Your task to perform on an android device: add a contact in the contacts app Image 0: 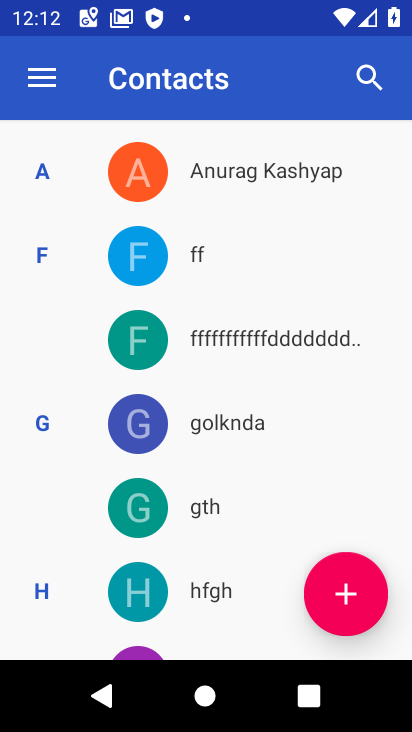
Step 0: press back button
Your task to perform on an android device: add a contact in the contacts app Image 1: 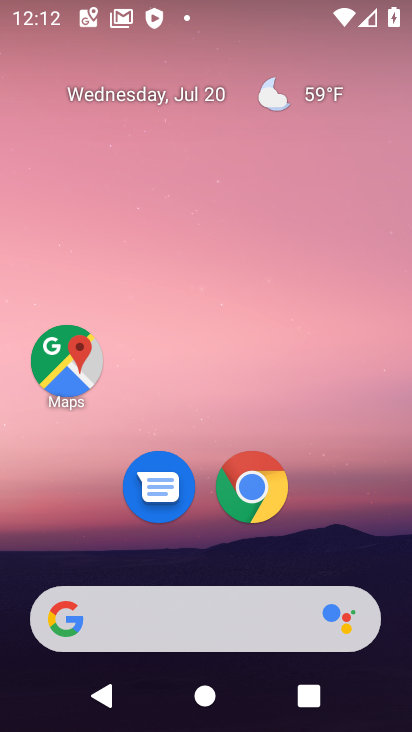
Step 1: drag from (214, 553) to (328, 25)
Your task to perform on an android device: add a contact in the contacts app Image 2: 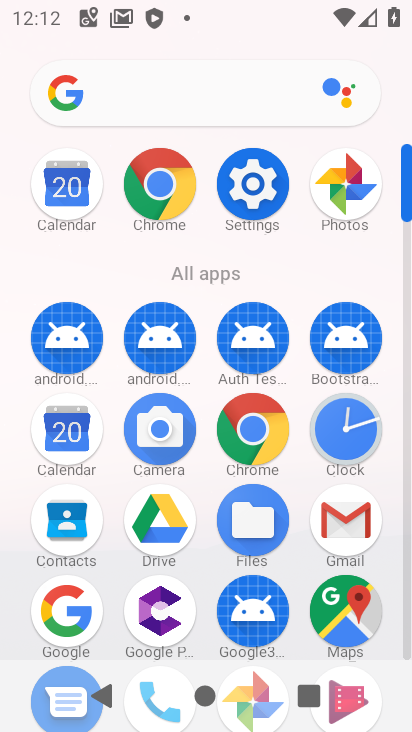
Step 2: click (80, 534)
Your task to perform on an android device: add a contact in the contacts app Image 3: 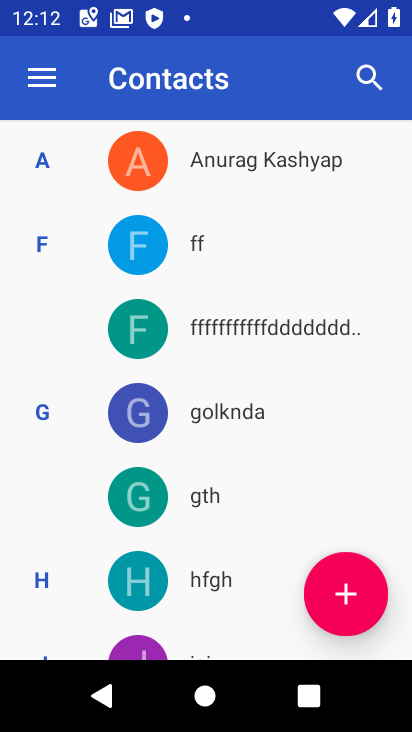
Step 3: click (351, 589)
Your task to perform on an android device: add a contact in the contacts app Image 4: 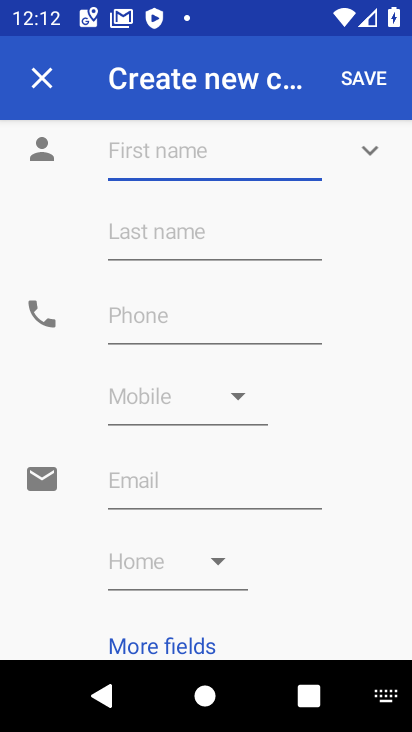
Step 4: click (124, 155)
Your task to perform on an android device: add a contact in the contacts app Image 5: 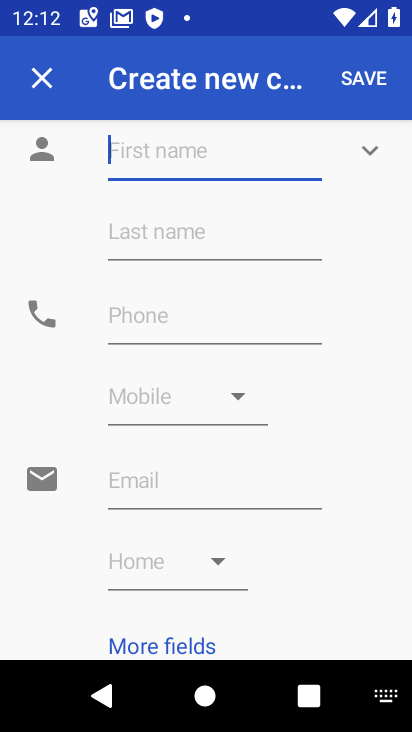
Step 5: type "bfgbgr"
Your task to perform on an android device: add a contact in the contacts app Image 6: 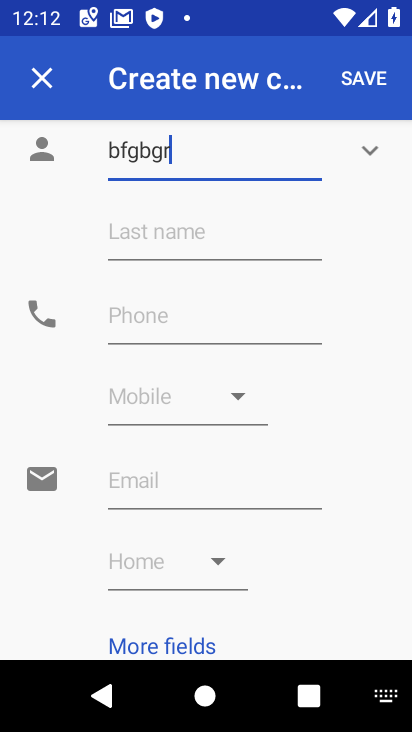
Step 6: click (127, 319)
Your task to perform on an android device: add a contact in the contacts app Image 7: 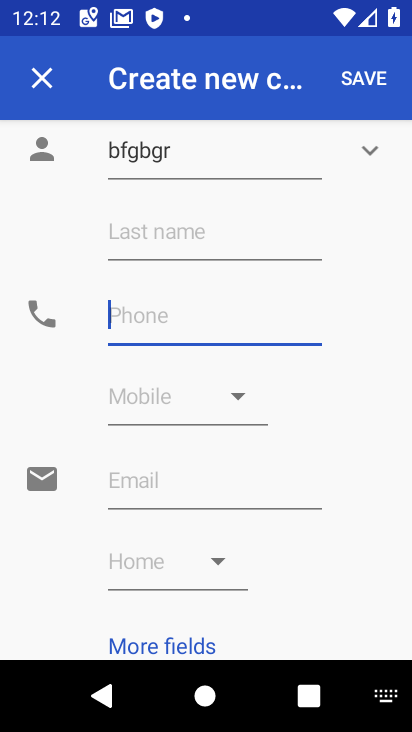
Step 7: type "7879u"
Your task to perform on an android device: add a contact in the contacts app Image 8: 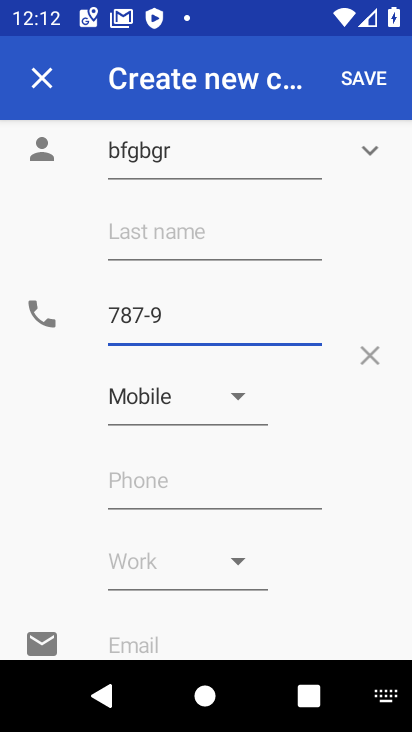
Step 8: click (348, 74)
Your task to perform on an android device: add a contact in the contacts app Image 9: 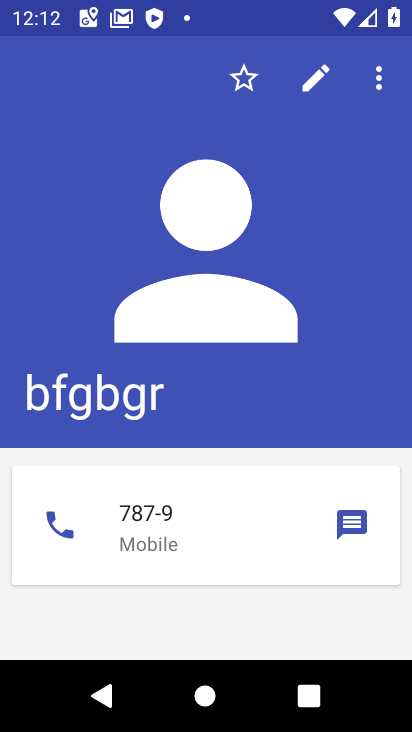
Step 9: task complete